Your task to perform on an android device: Open the map Image 0: 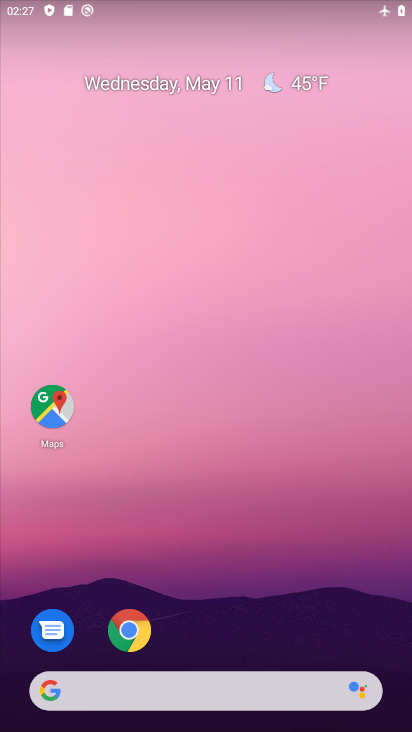
Step 0: drag from (214, 721) to (215, 311)
Your task to perform on an android device: Open the map Image 1: 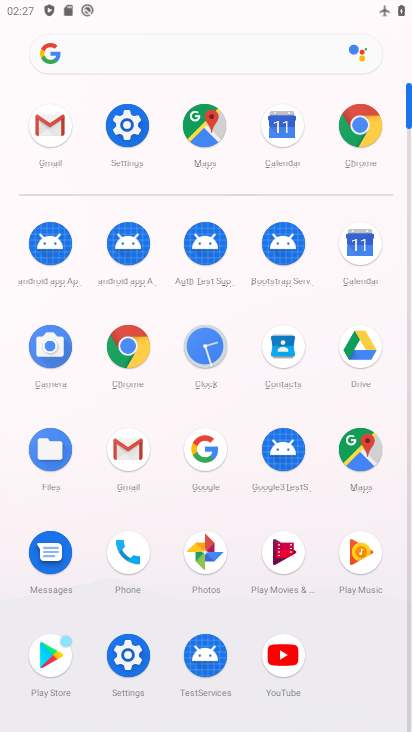
Step 1: click (367, 449)
Your task to perform on an android device: Open the map Image 2: 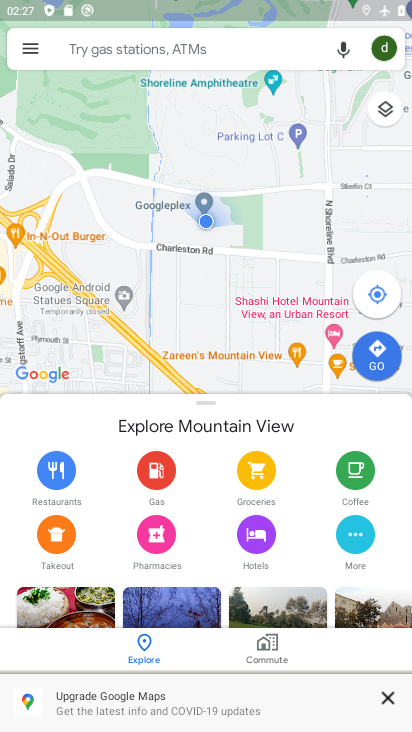
Step 2: task complete